Your task to perform on an android device: toggle wifi Image 0: 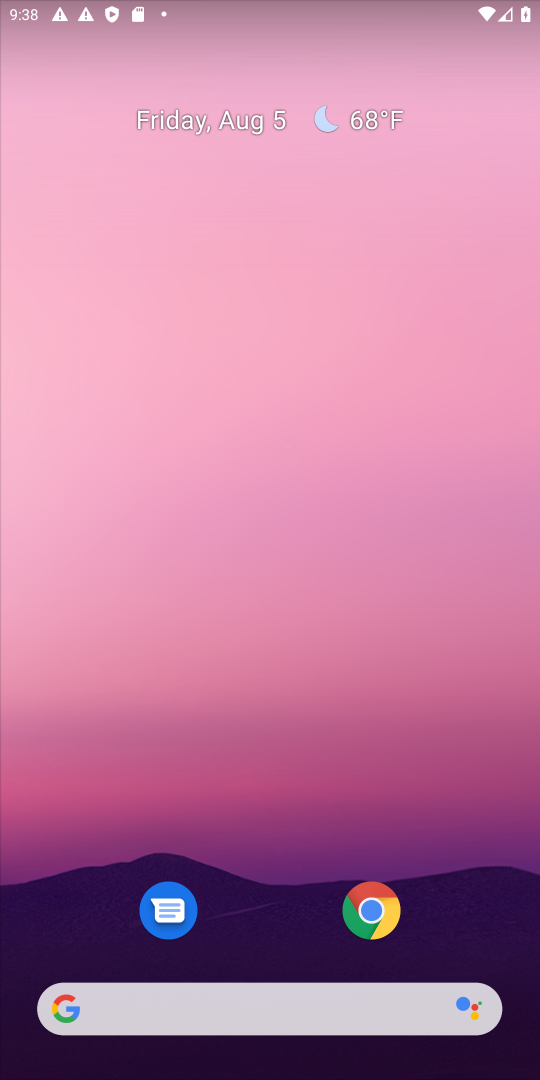
Step 0: drag from (247, 16) to (409, 914)
Your task to perform on an android device: toggle wifi Image 1: 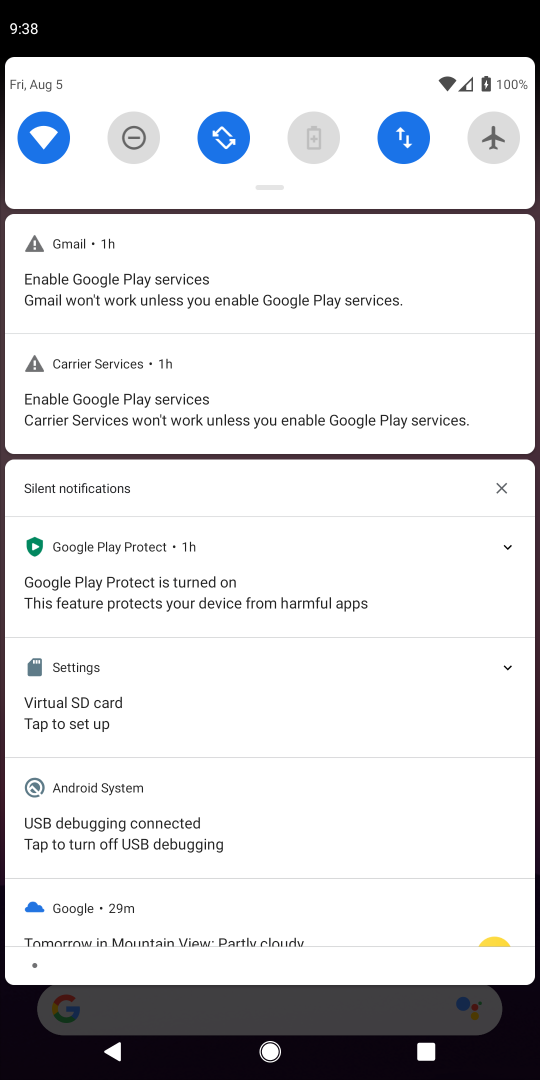
Step 1: click (44, 143)
Your task to perform on an android device: toggle wifi Image 2: 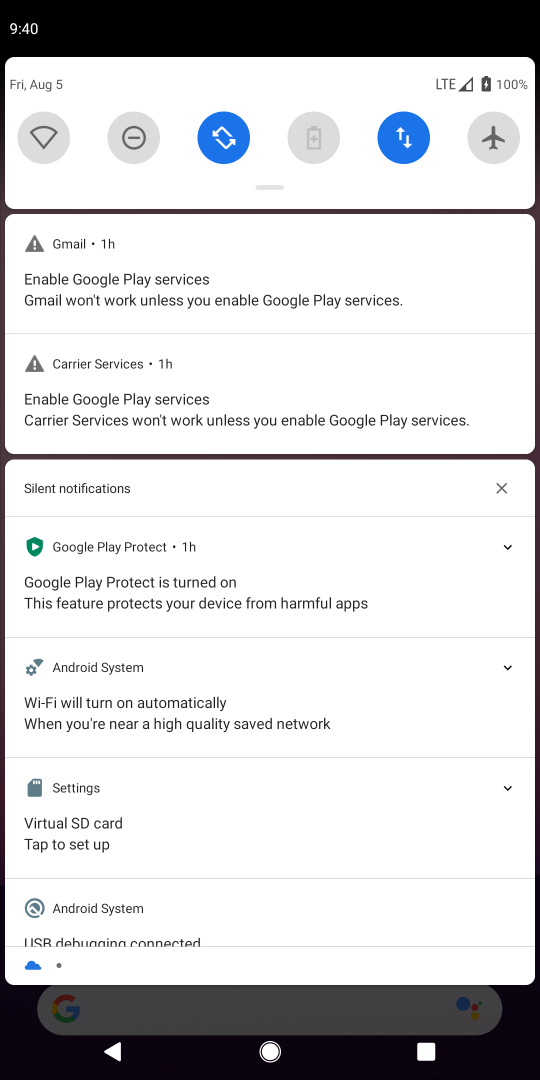
Step 2: task complete